Your task to perform on an android device: refresh tabs in the chrome app Image 0: 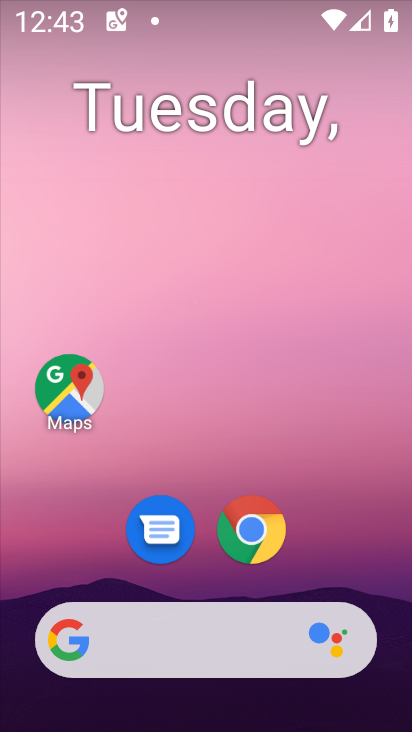
Step 0: click (258, 528)
Your task to perform on an android device: refresh tabs in the chrome app Image 1: 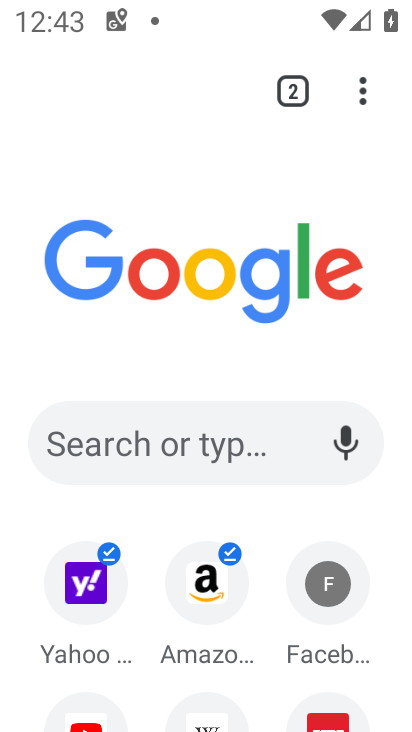
Step 1: task complete